Your task to perform on an android device: change the upload size in google photos Image 0: 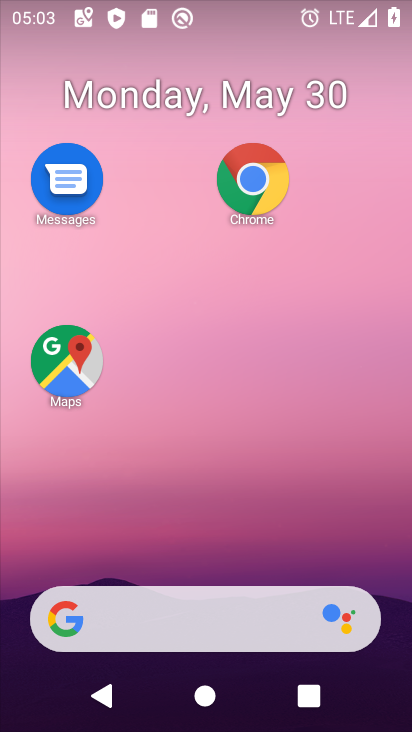
Step 0: drag from (206, 582) to (270, 119)
Your task to perform on an android device: change the upload size in google photos Image 1: 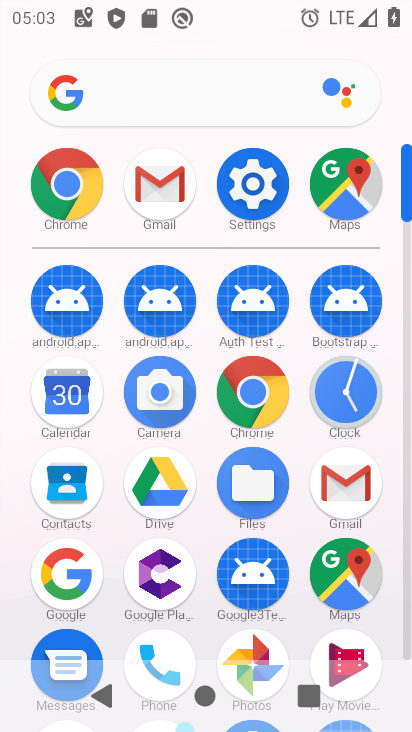
Step 1: click (269, 649)
Your task to perform on an android device: change the upload size in google photos Image 2: 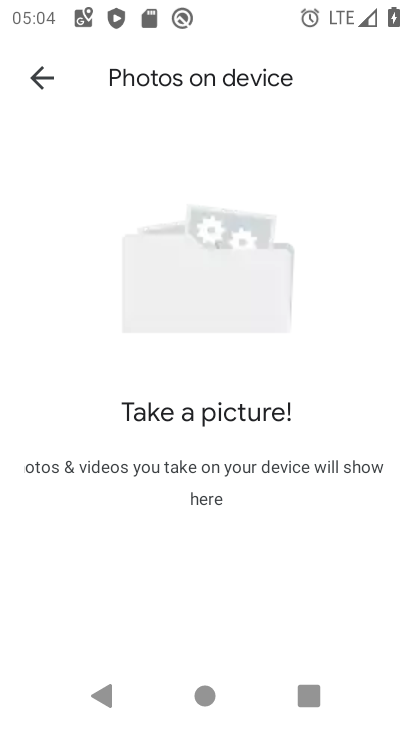
Step 2: click (38, 95)
Your task to perform on an android device: change the upload size in google photos Image 3: 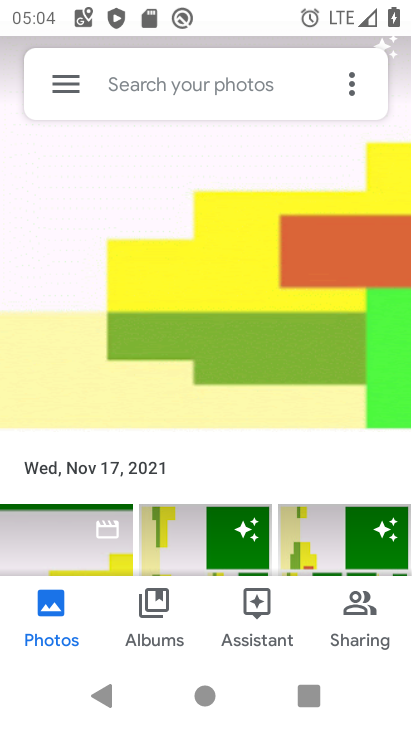
Step 3: click (69, 89)
Your task to perform on an android device: change the upload size in google photos Image 4: 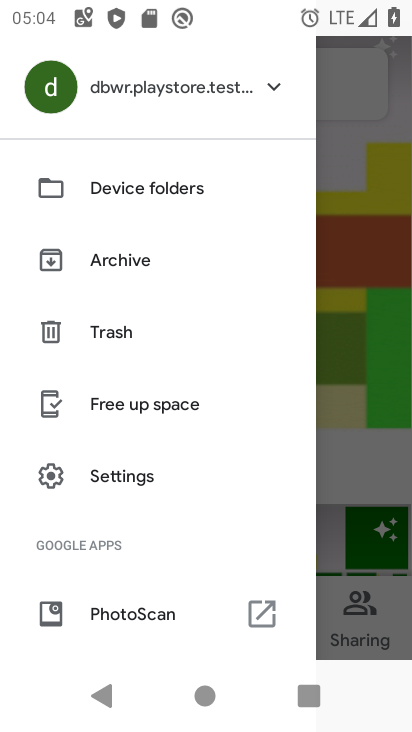
Step 4: click (116, 488)
Your task to perform on an android device: change the upload size in google photos Image 5: 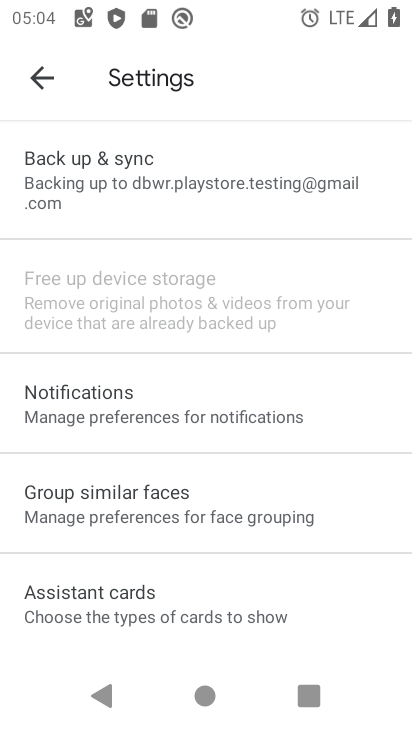
Step 5: click (60, 203)
Your task to perform on an android device: change the upload size in google photos Image 6: 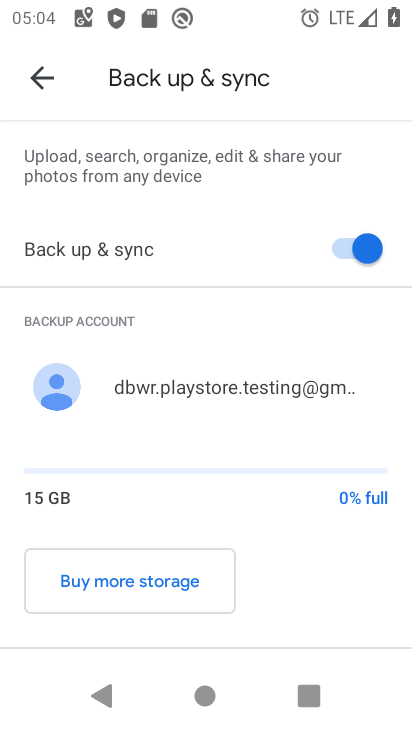
Step 6: drag from (177, 184) to (179, 142)
Your task to perform on an android device: change the upload size in google photos Image 7: 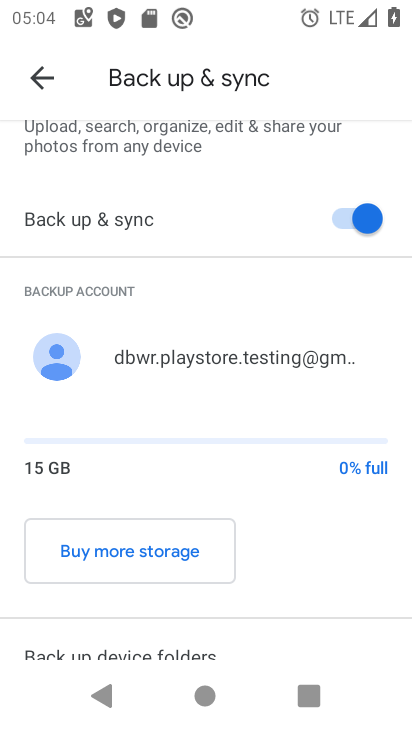
Step 7: drag from (281, 592) to (261, 295)
Your task to perform on an android device: change the upload size in google photos Image 8: 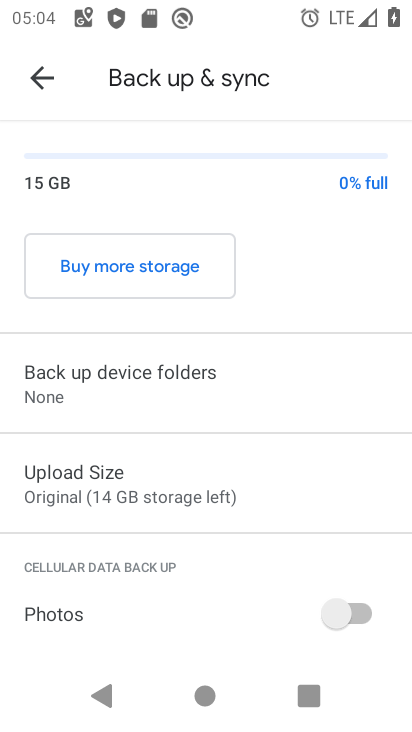
Step 8: click (68, 483)
Your task to perform on an android device: change the upload size in google photos Image 9: 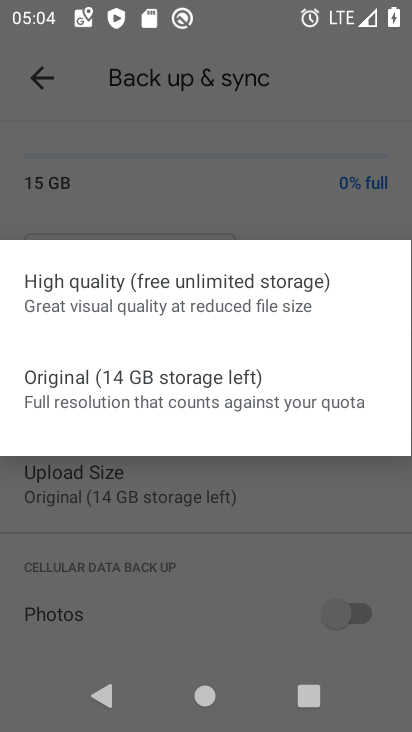
Step 9: click (95, 276)
Your task to perform on an android device: change the upload size in google photos Image 10: 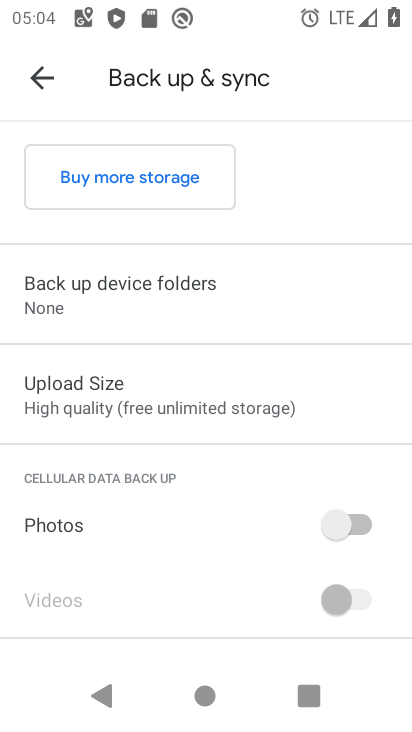
Step 10: task complete